Your task to perform on an android device: uninstall "eBay: The shopping marketplace" Image 0: 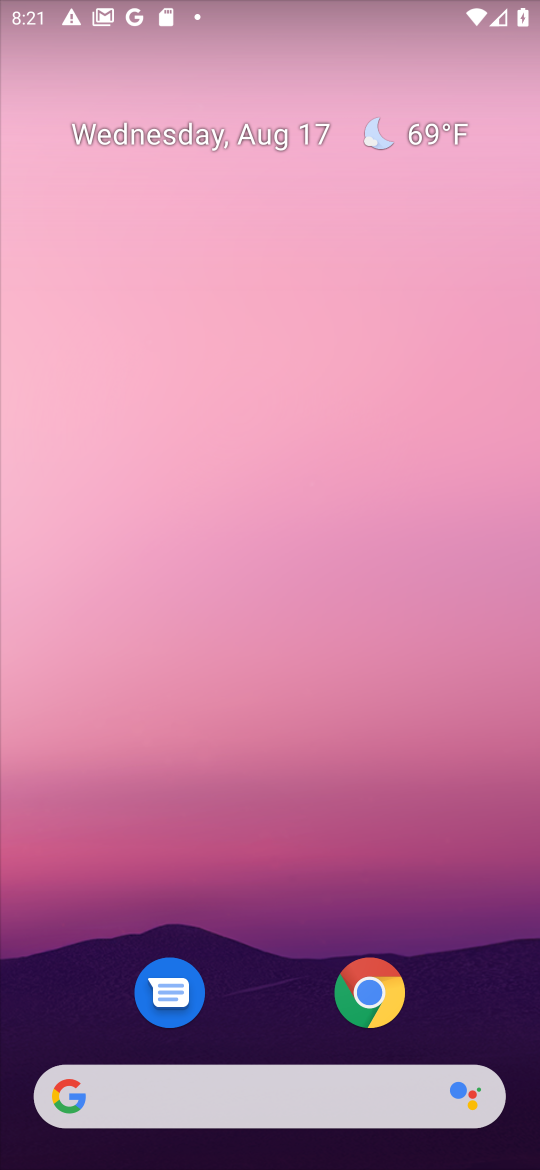
Step 0: drag from (479, 1008) to (154, 72)
Your task to perform on an android device: uninstall "eBay: The shopping marketplace" Image 1: 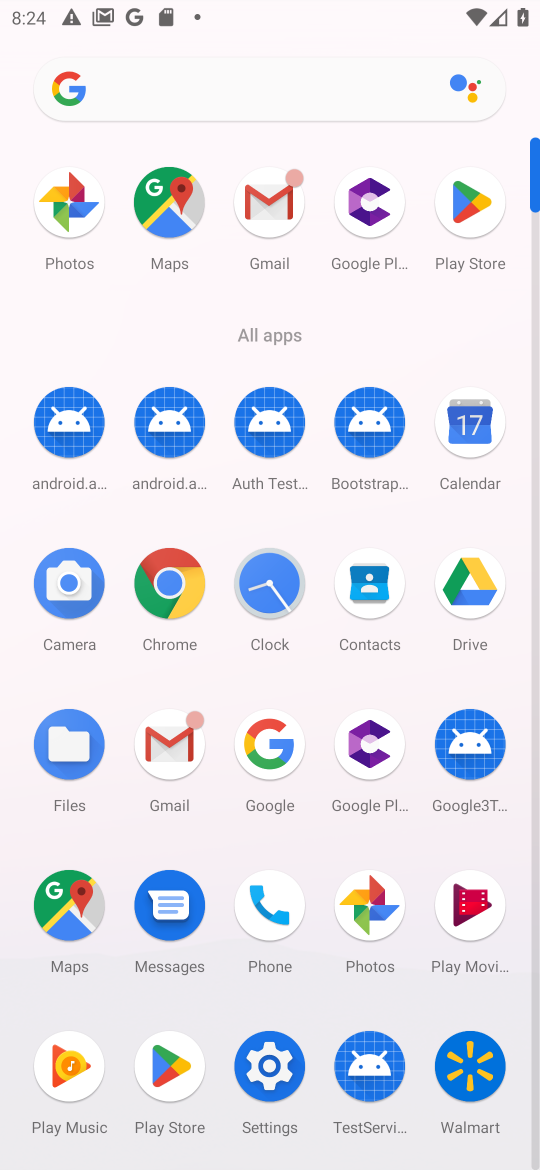
Step 1: click (178, 1061)
Your task to perform on an android device: uninstall "eBay: The shopping marketplace" Image 2: 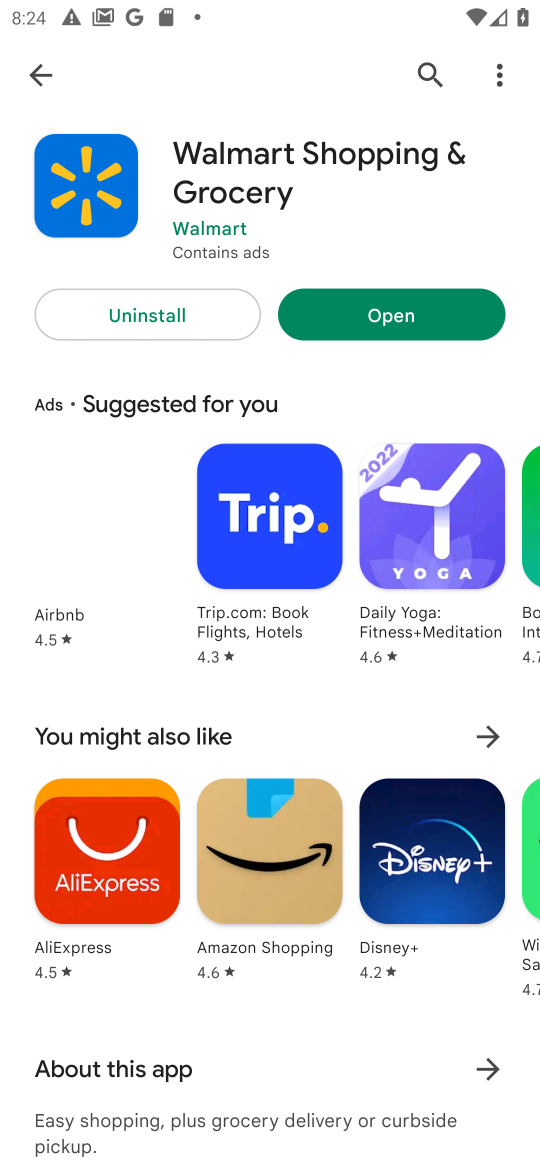
Step 2: press back button
Your task to perform on an android device: uninstall "eBay: The shopping marketplace" Image 3: 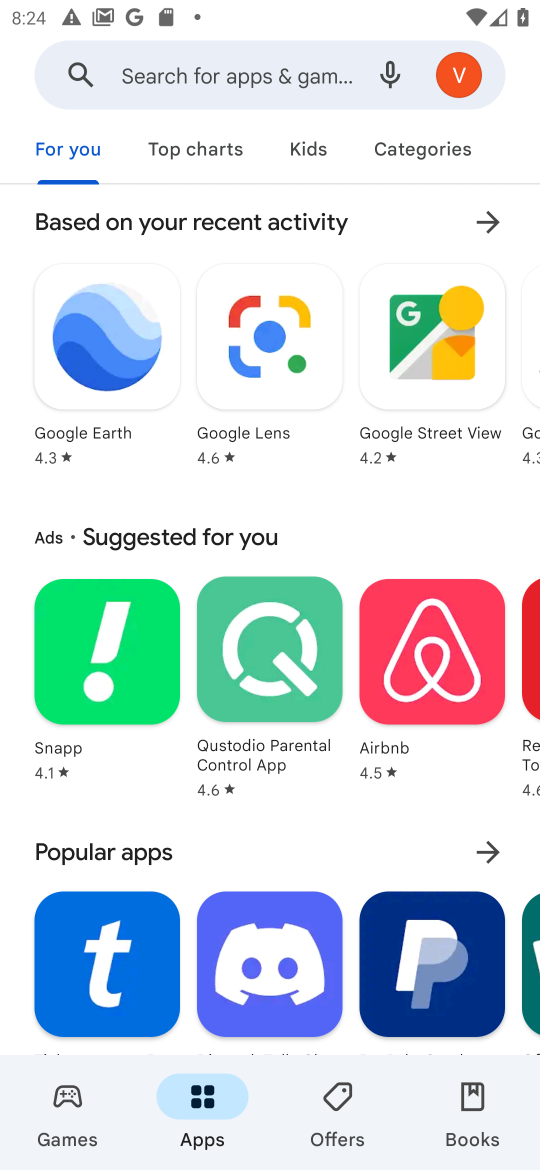
Step 3: click (180, 83)
Your task to perform on an android device: uninstall "eBay: The shopping marketplace" Image 4: 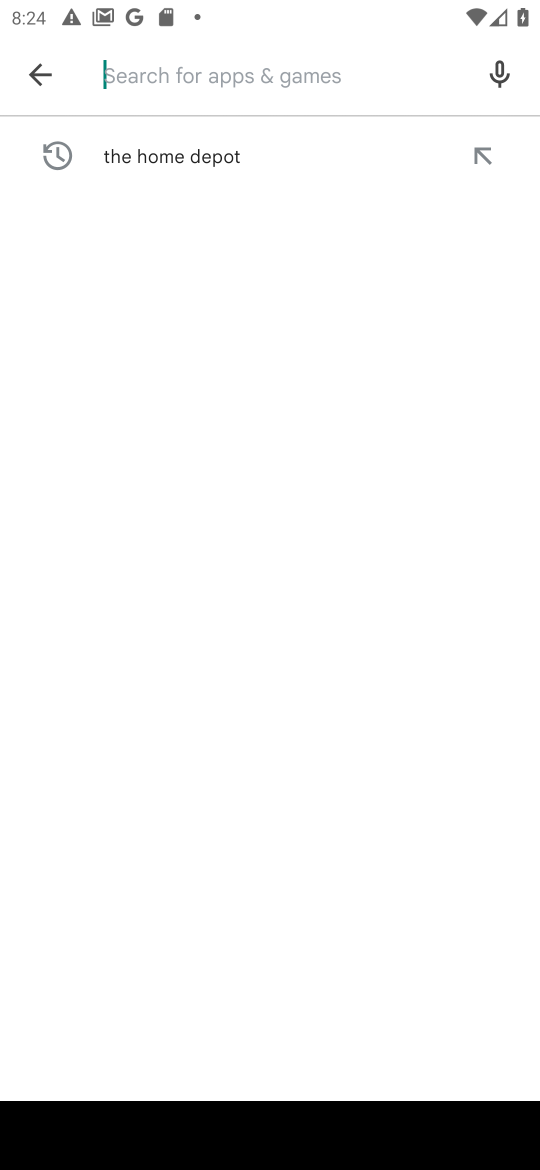
Step 4: type "eBay: The shopping marketplace"
Your task to perform on an android device: uninstall "eBay: The shopping marketplace" Image 5: 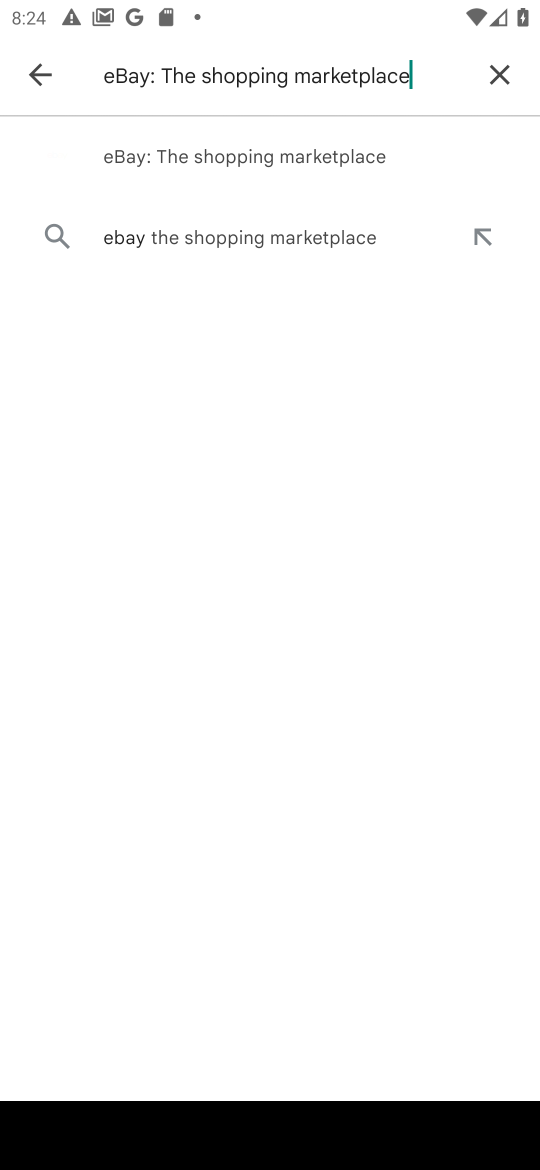
Step 5: click (161, 153)
Your task to perform on an android device: uninstall "eBay: The shopping marketplace" Image 6: 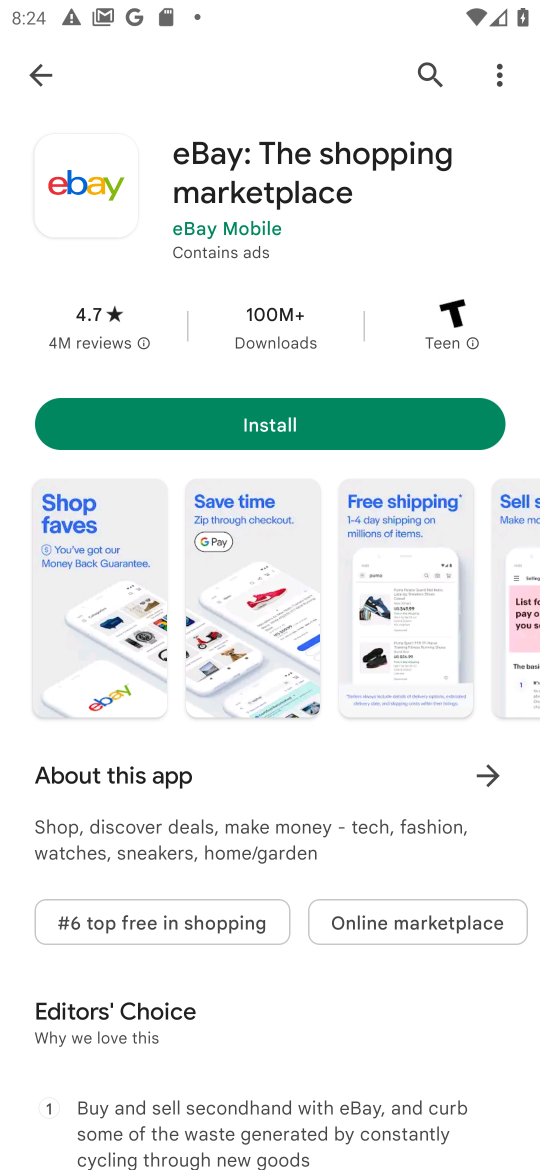
Step 6: task complete